Your task to perform on an android device: star an email in the gmail app Image 0: 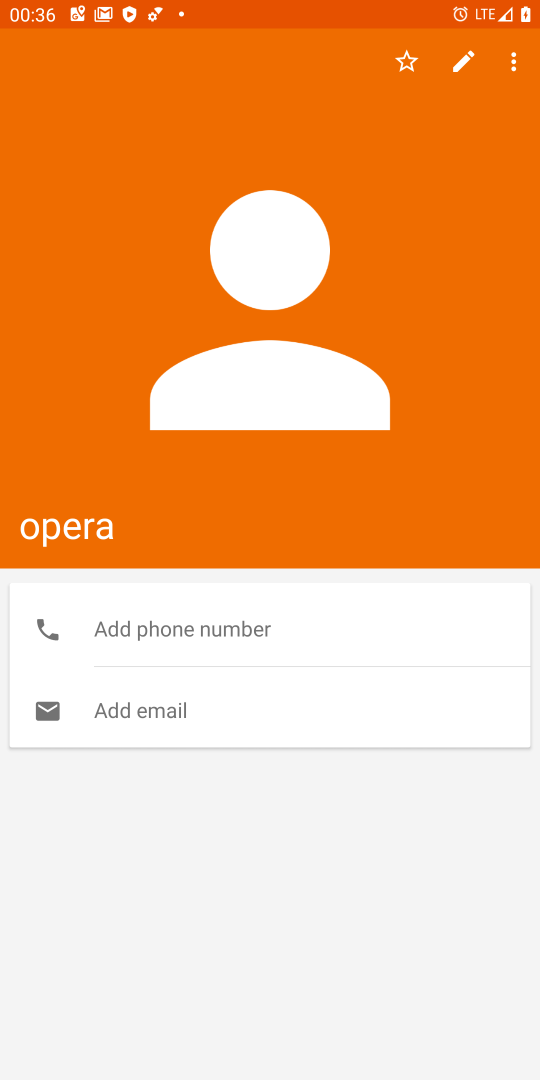
Step 0: press home button
Your task to perform on an android device: star an email in the gmail app Image 1: 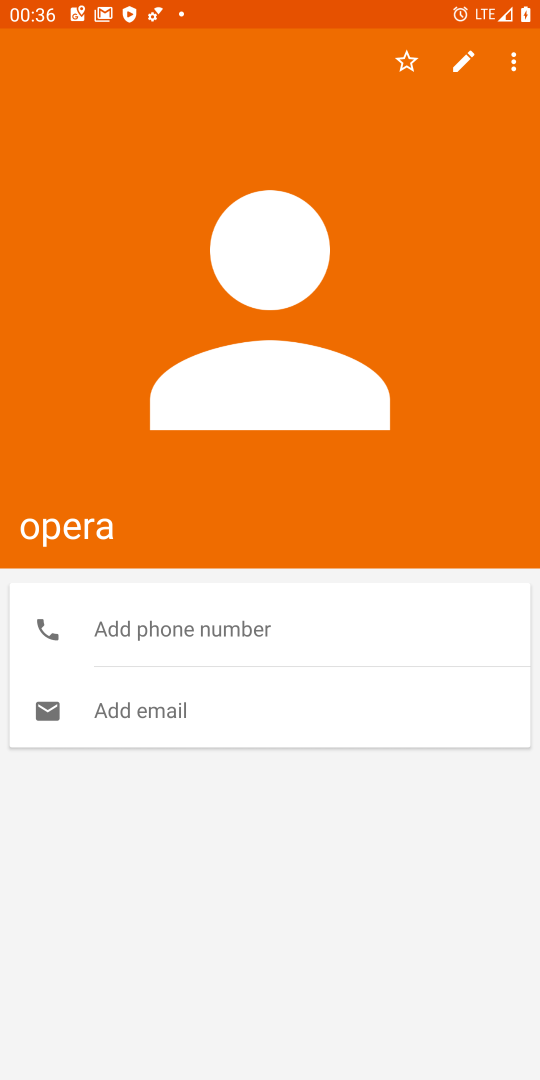
Step 1: press home button
Your task to perform on an android device: star an email in the gmail app Image 2: 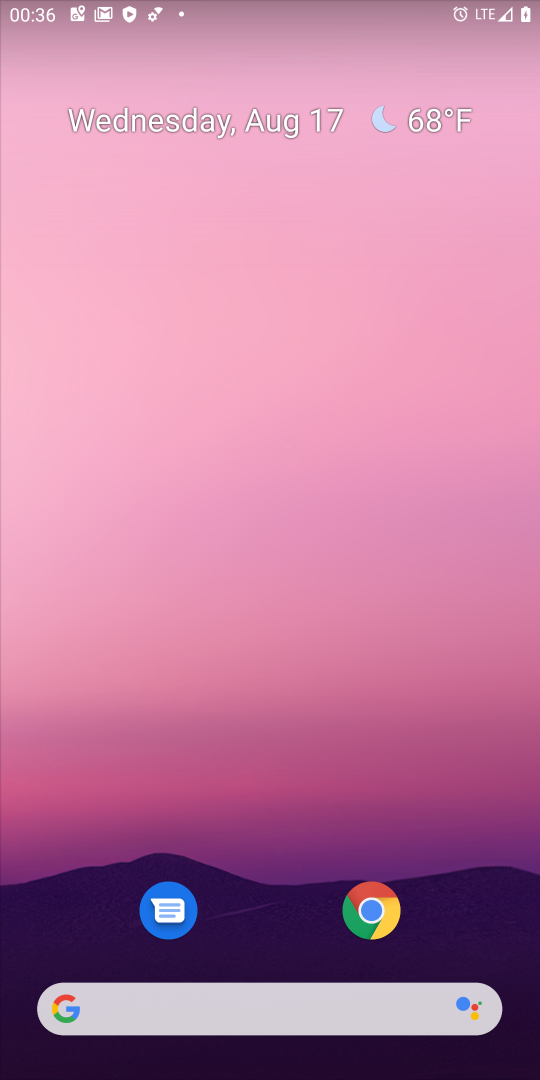
Step 2: drag from (313, 797) to (327, 74)
Your task to perform on an android device: star an email in the gmail app Image 3: 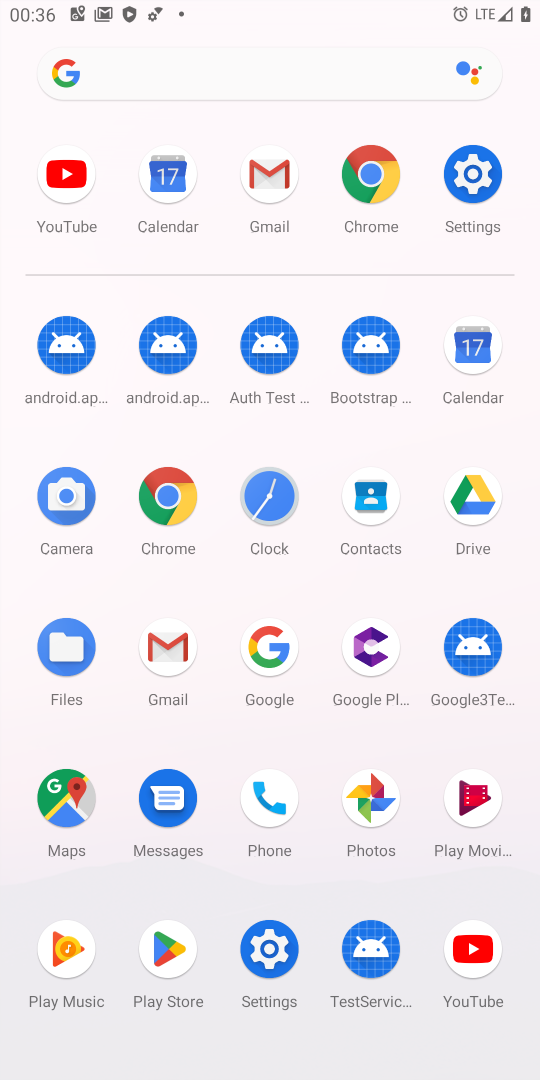
Step 3: click (171, 625)
Your task to perform on an android device: star an email in the gmail app Image 4: 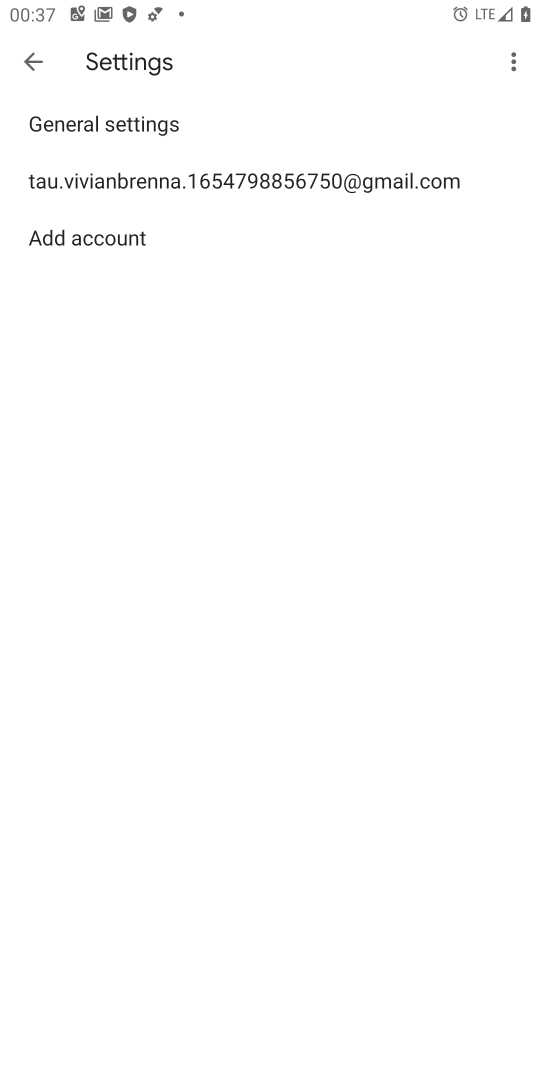
Step 4: press back button
Your task to perform on an android device: star an email in the gmail app Image 5: 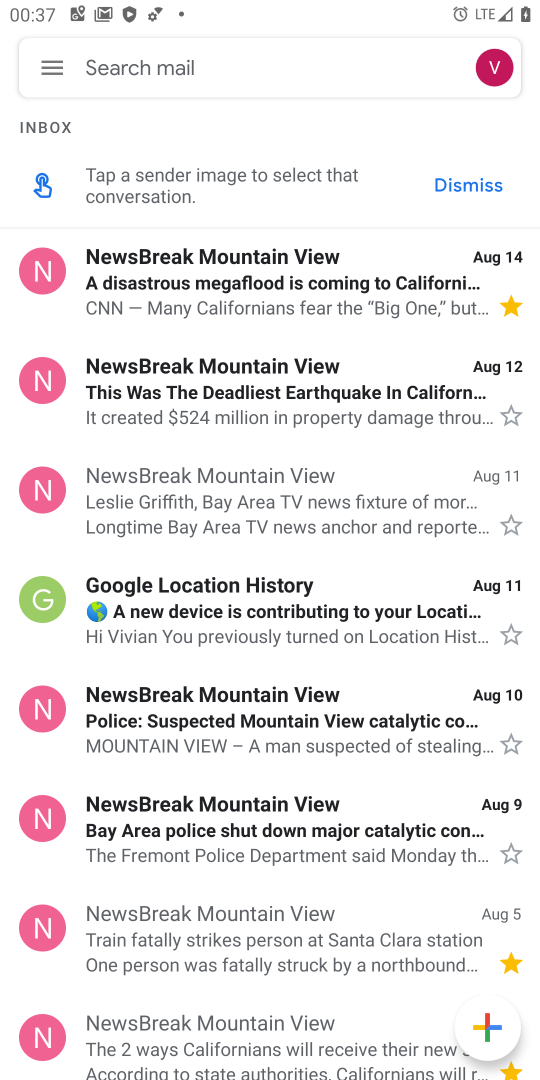
Step 5: click (512, 412)
Your task to perform on an android device: star an email in the gmail app Image 6: 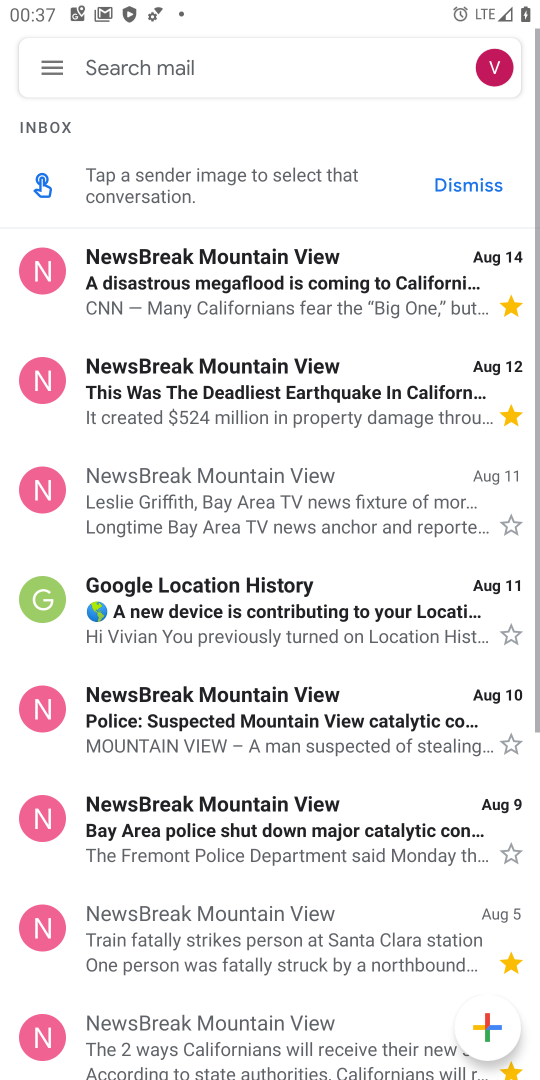
Step 6: task complete